Your task to perform on an android device: turn on sleep mode Image 0: 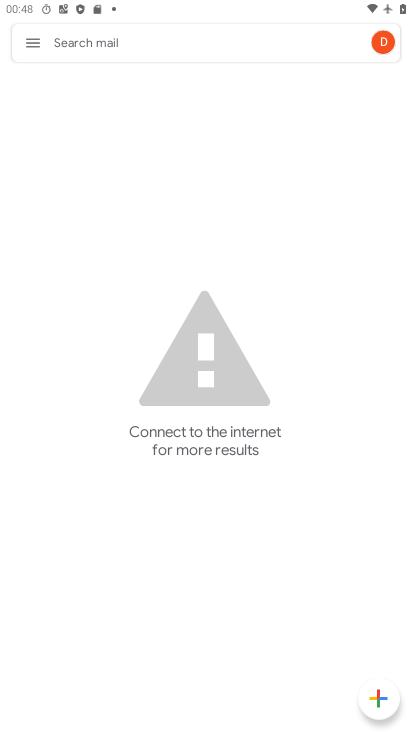
Step 0: press home button
Your task to perform on an android device: turn on sleep mode Image 1: 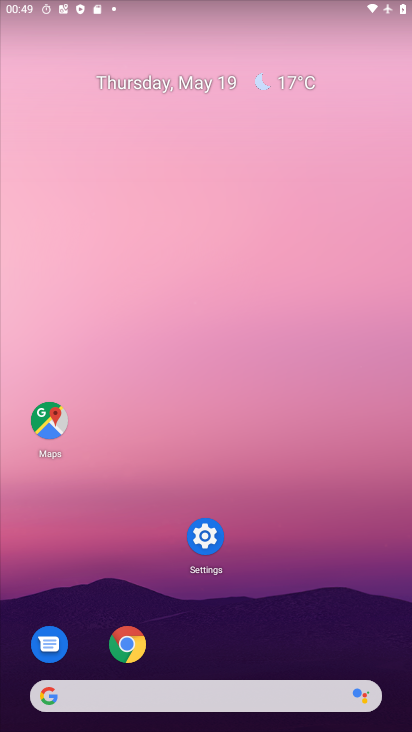
Step 1: drag from (301, 602) to (264, 100)
Your task to perform on an android device: turn on sleep mode Image 2: 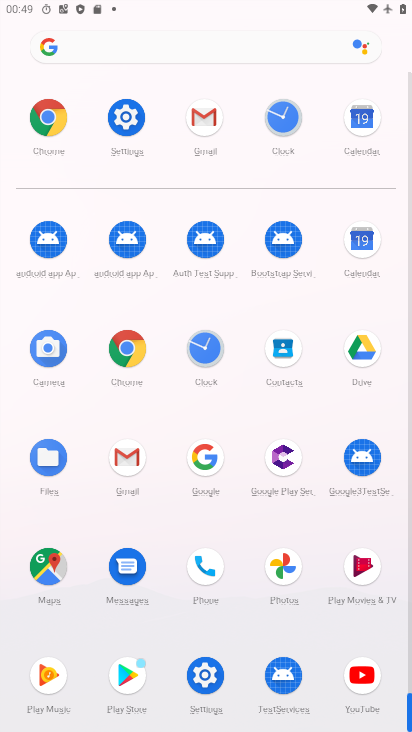
Step 2: click (120, 127)
Your task to perform on an android device: turn on sleep mode Image 3: 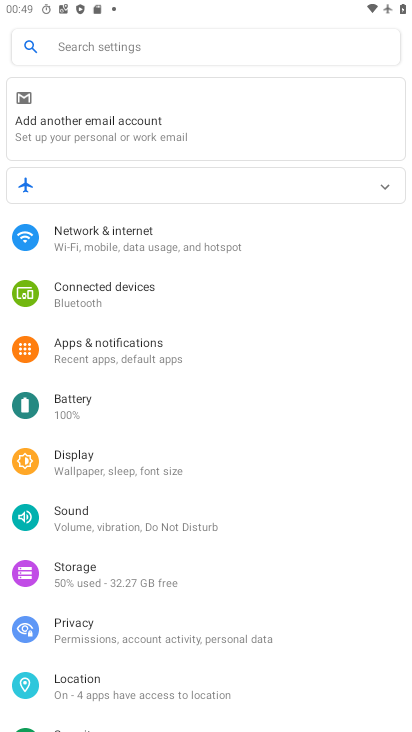
Step 3: click (98, 472)
Your task to perform on an android device: turn on sleep mode Image 4: 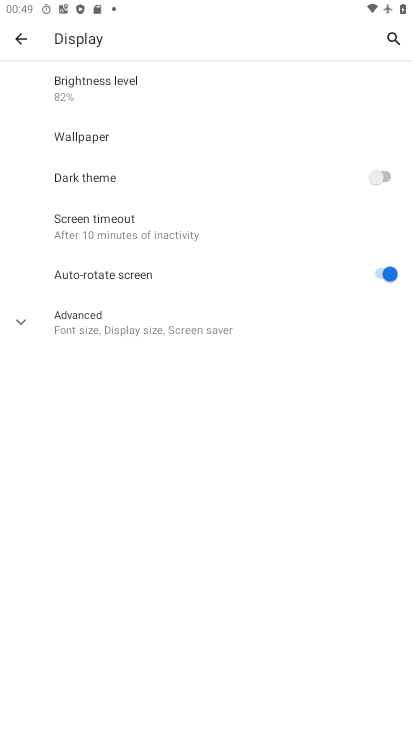
Step 4: click (125, 249)
Your task to perform on an android device: turn on sleep mode Image 5: 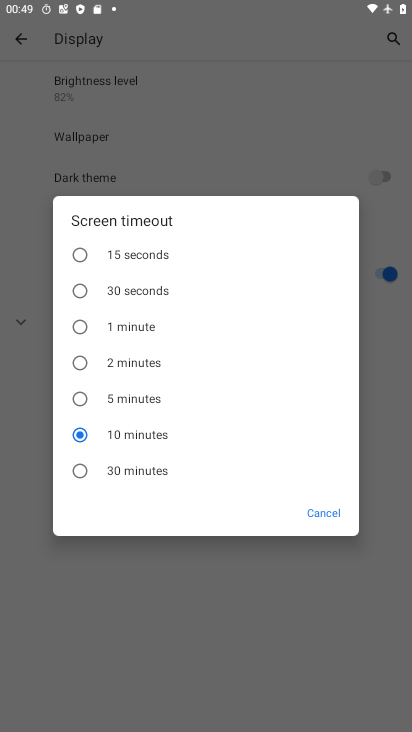
Step 5: task complete